Your task to perform on an android device: Go to sound settings Image 0: 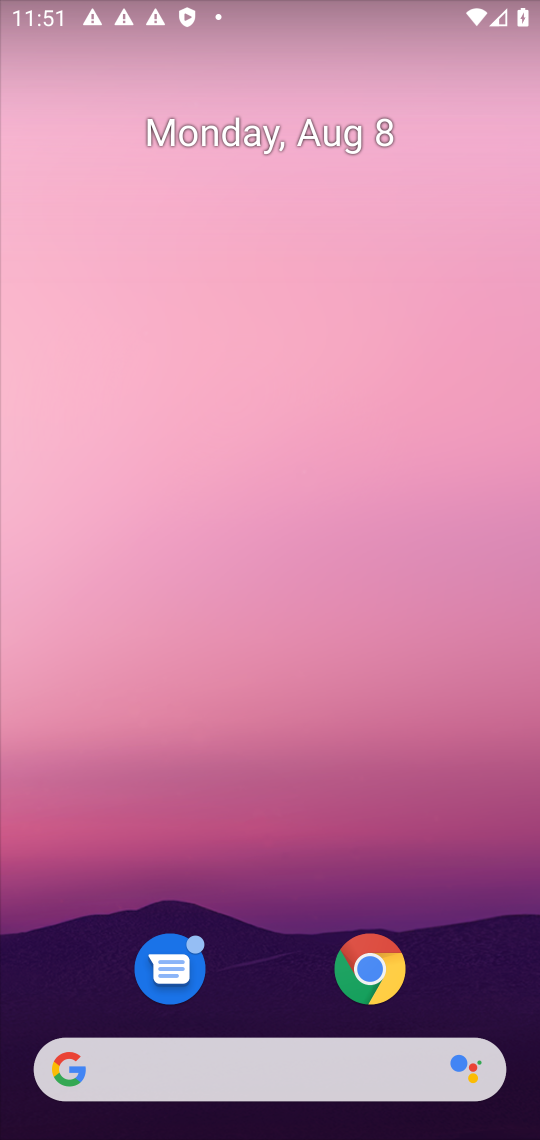
Step 0: drag from (286, 1008) to (247, 113)
Your task to perform on an android device: Go to sound settings Image 1: 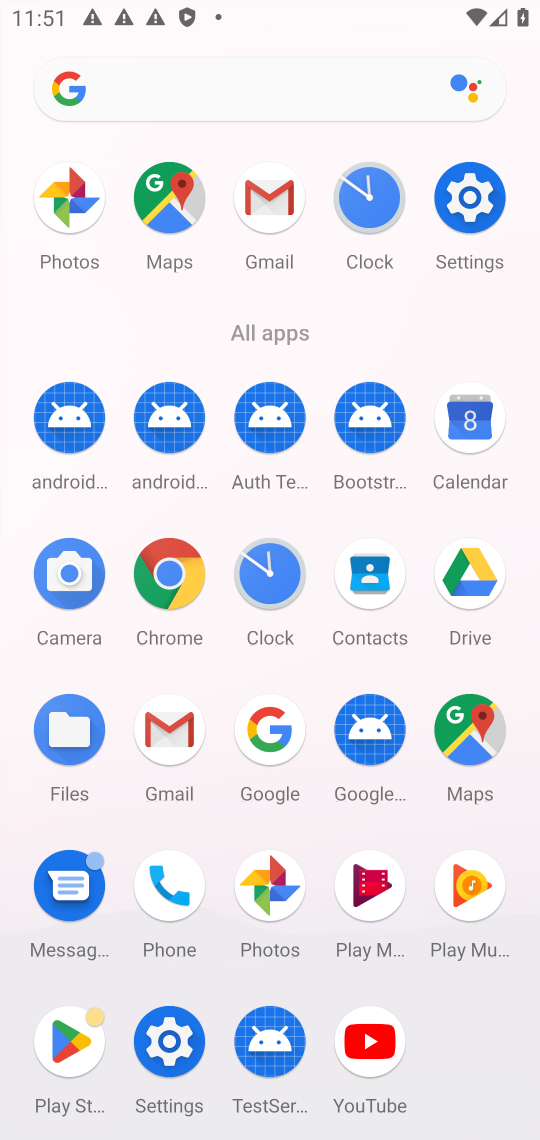
Step 1: click (471, 209)
Your task to perform on an android device: Go to sound settings Image 2: 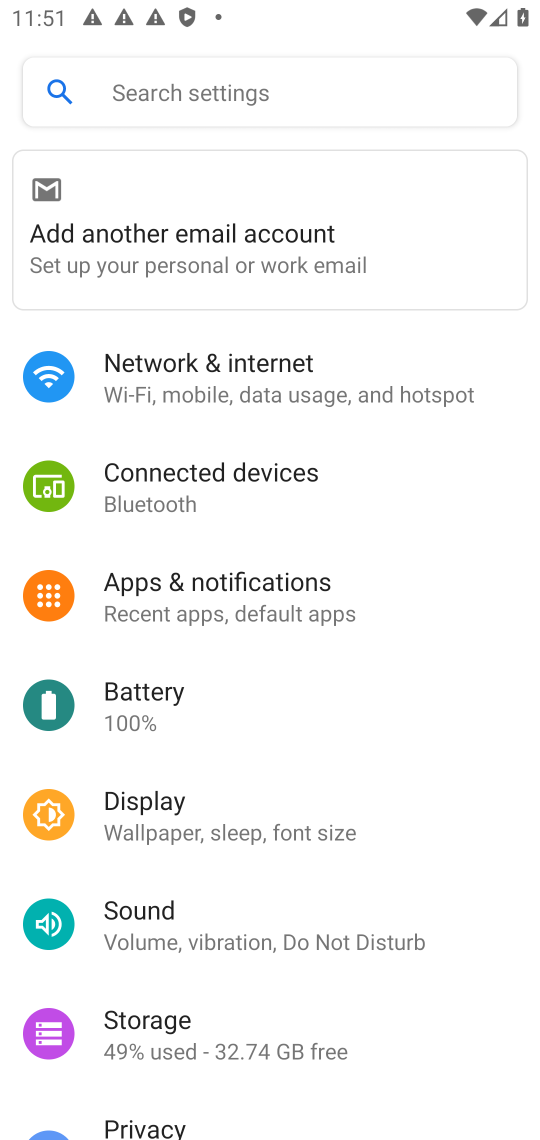
Step 2: click (163, 904)
Your task to perform on an android device: Go to sound settings Image 3: 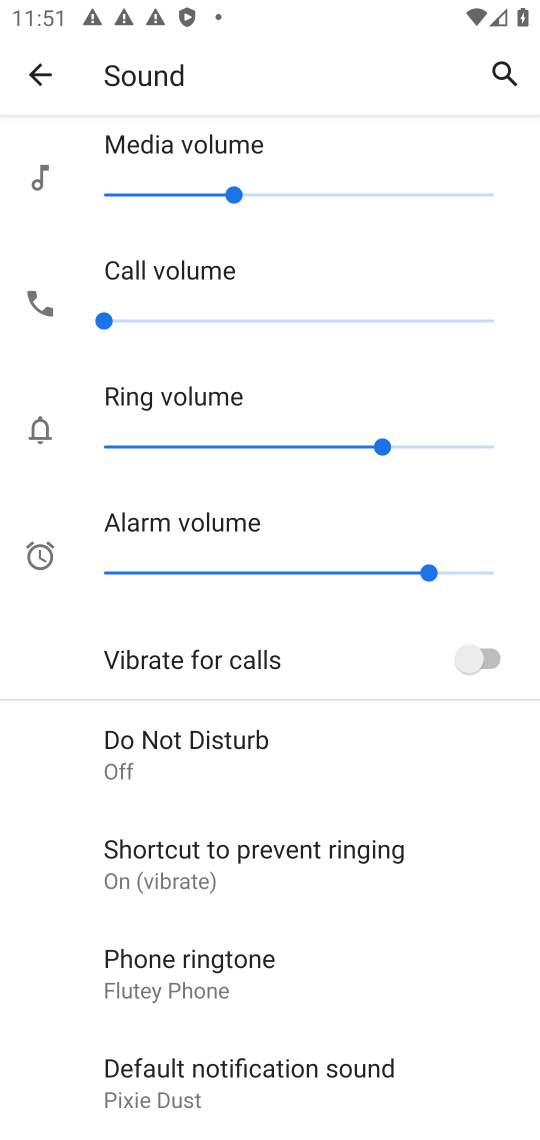
Step 3: task complete